Your task to perform on an android device: see tabs open on other devices in the chrome app Image 0: 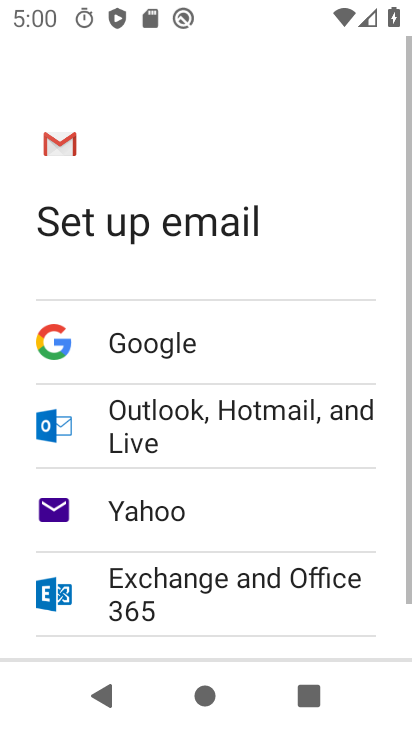
Step 0: press home button
Your task to perform on an android device: see tabs open on other devices in the chrome app Image 1: 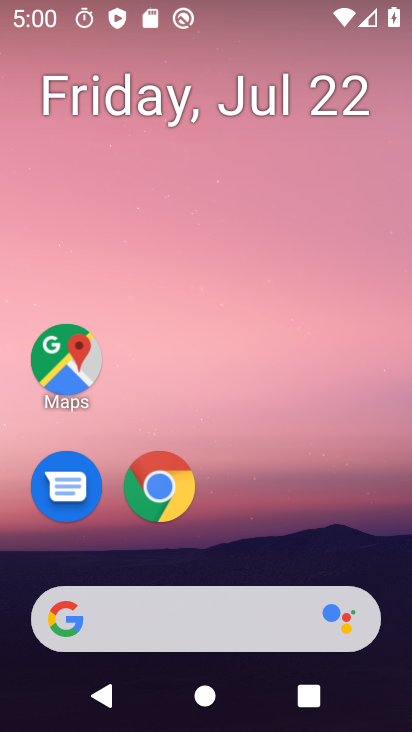
Step 1: click (167, 504)
Your task to perform on an android device: see tabs open on other devices in the chrome app Image 2: 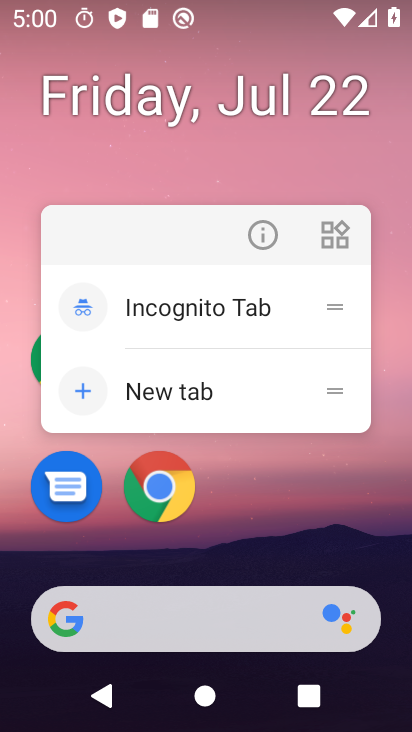
Step 2: click (167, 504)
Your task to perform on an android device: see tabs open on other devices in the chrome app Image 3: 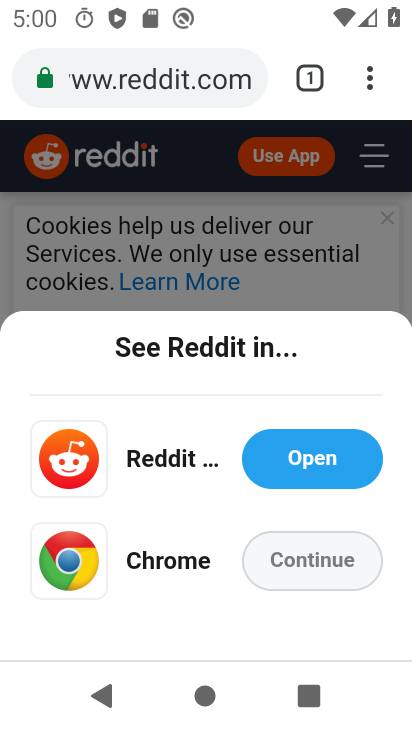
Step 3: click (369, 86)
Your task to perform on an android device: see tabs open on other devices in the chrome app Image 4: 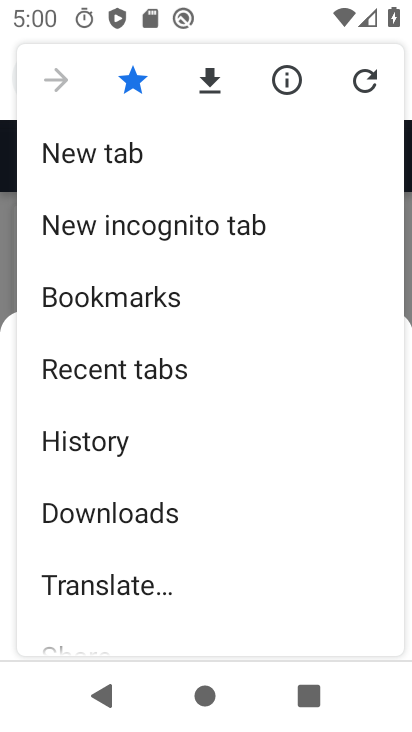
Step 4: click (204, 365)
Your task to perform on an android device: see tabs open on other devices in the chrome app Image 5: 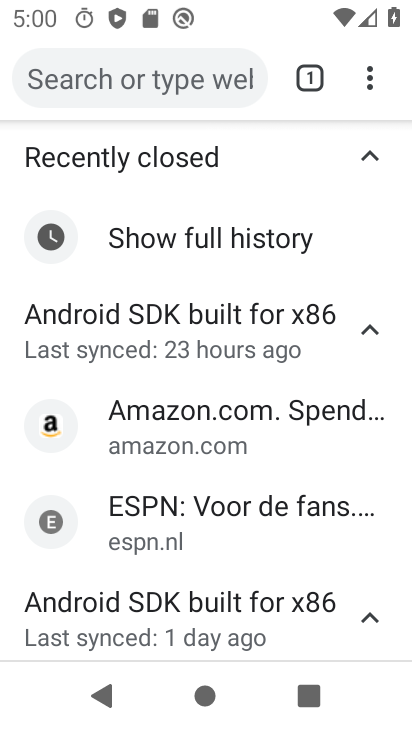
Step 5: task complete